Your task to perform on an android device: change keyboard looks Image 0: 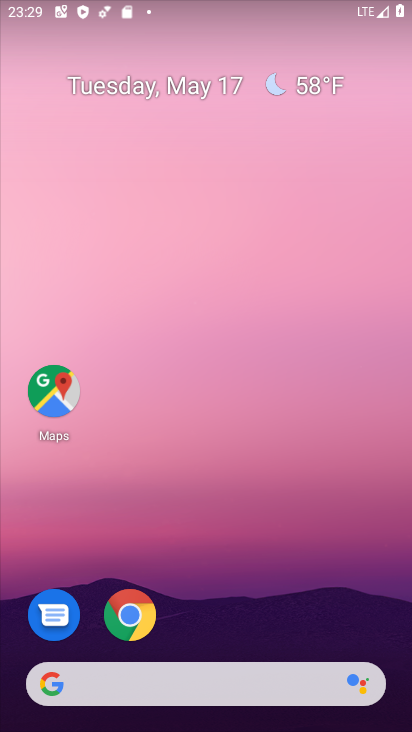
Step 0: drag from (246, 625) to (253, 218)
Your task to perform on an android device: change keyboard looks Image 1: 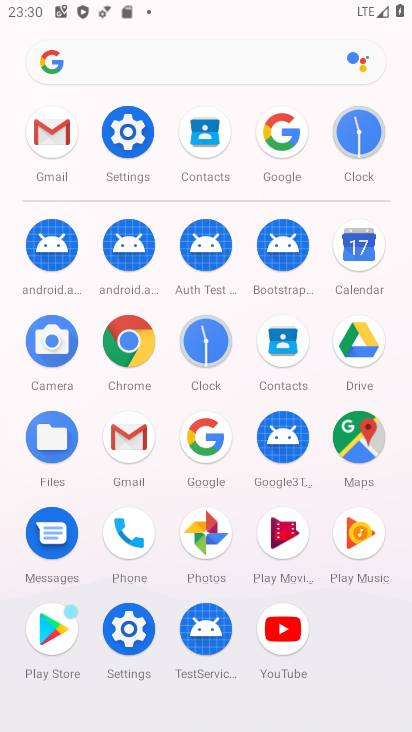
Step 1: click (123, 632)
Your task to perform on an android device: change keyboard looks Image 2: 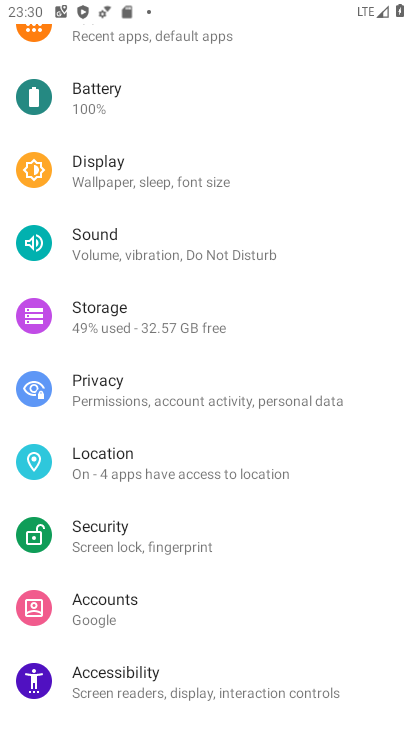
Step 2: drag from (201, 623) to (214, 229)
Your task to perform on an android device: change keyboard looks Image 3: 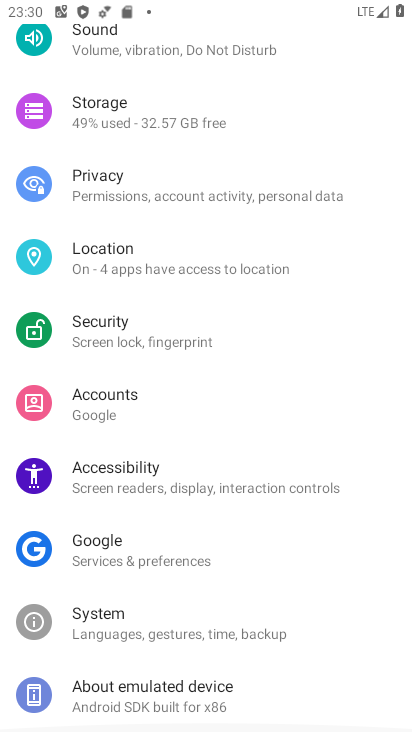
Step 3: drag from (212, 584) to (248, 247)
Your task to perform on an android device: change keyboard looks Image 4: 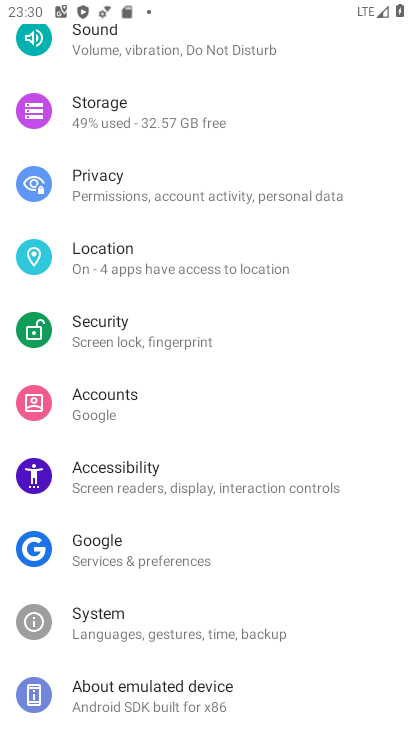
Step 4: click (133, 623)
Your task to perform on an android device: change keyboard looks Image 5: 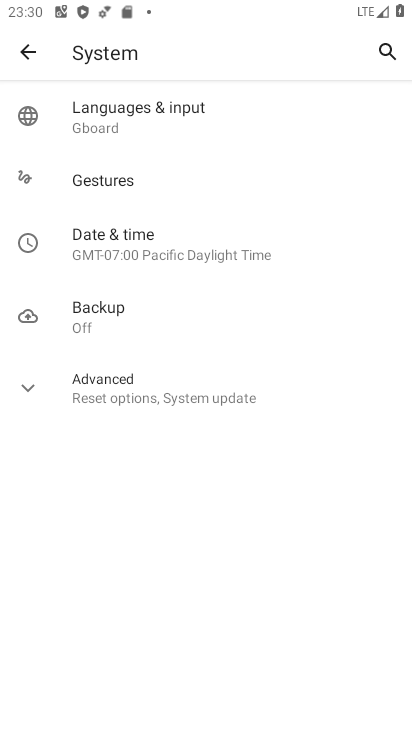
Step 5: click (123, 127)
Your task to perform on an android device: change keyboard looks Image 6: 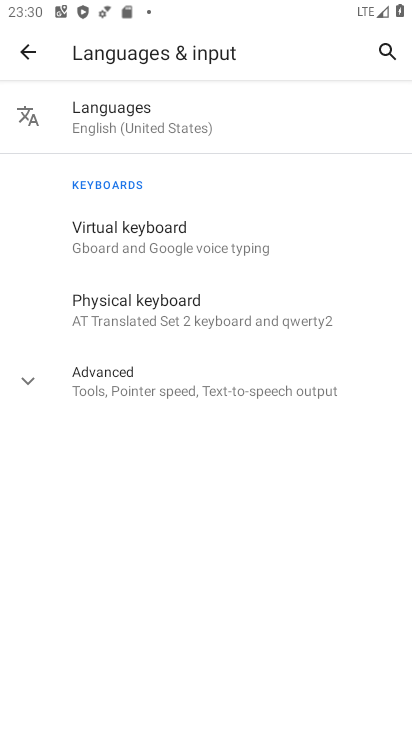
Step 6: click (181, 233)
Your task to perform on an android device: change keyboard looks Image 7: 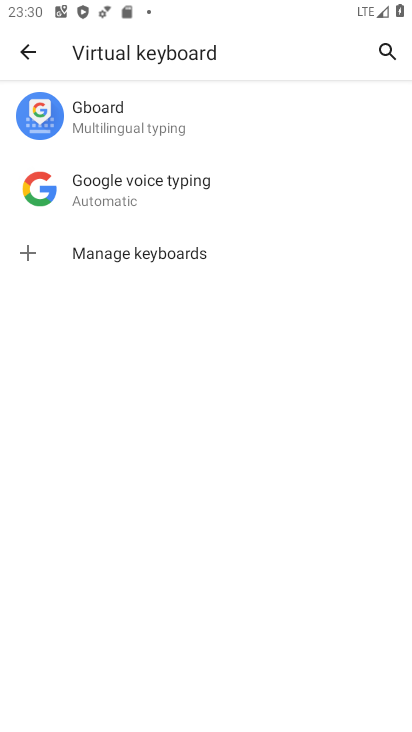
Step 7: click (118, 127)
Your task to perform on an android device: change keyboard looks Image 8: 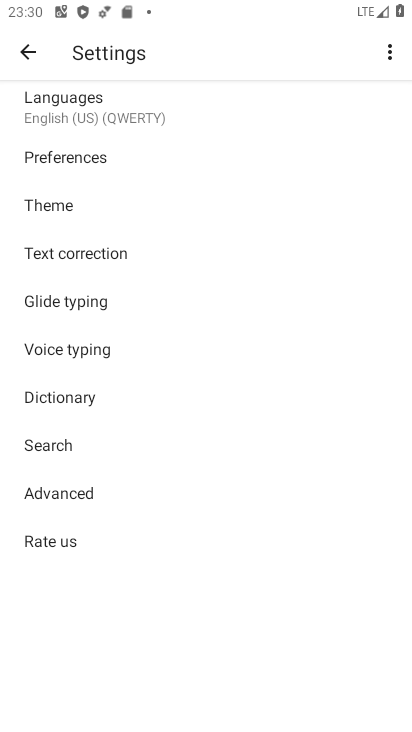
Step 8: click (82, 216)
Your task to perform on an android device: change keyboard looks Image 9: 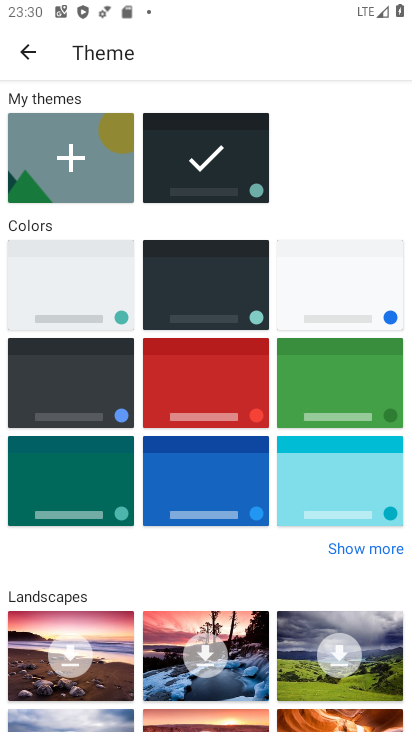
Step 9: click (117, 283)
Your task to perform on an android device: change keyboard looks Image 10: 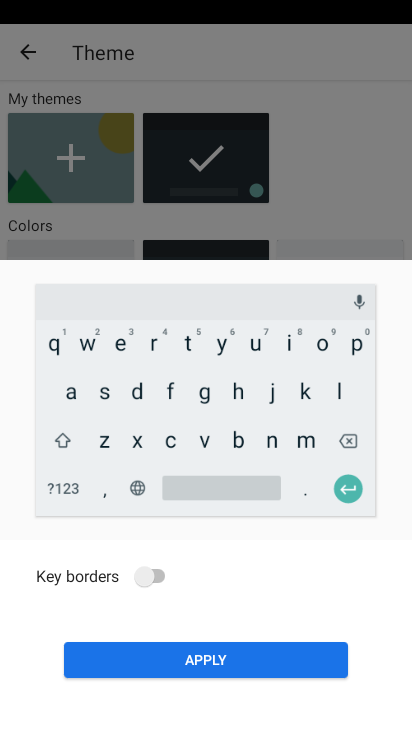
Step 10: click (321, 656)
Your task to perform on an android device: change keyboard looks Image 11: 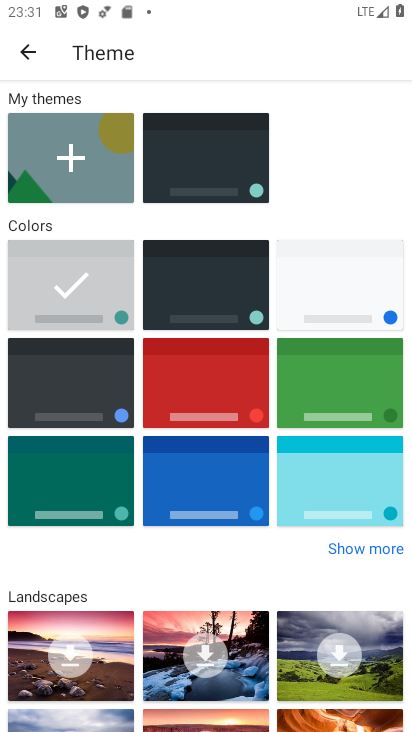
Step 11: task complete